Your task to perform on an android device: toggle airplane mode Image 0: 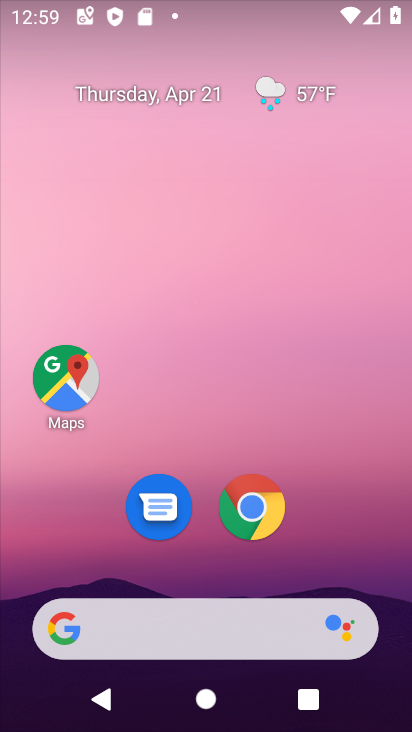
Step 0: drag from (328, 530) to (283, 45)
Your task to perform on an android device: toggle airplane mode Image 1: 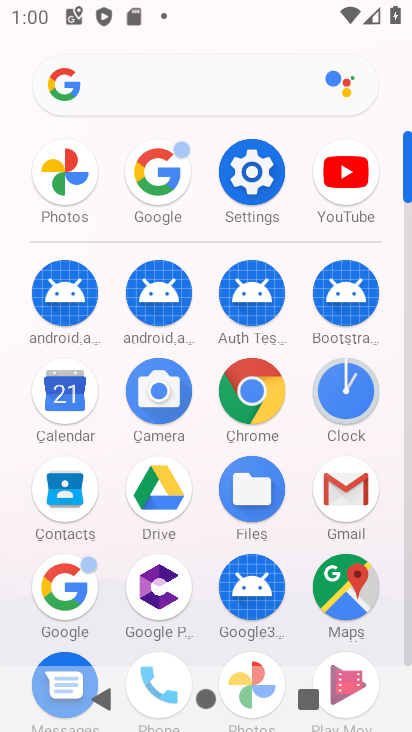
Step 1: click (254, 170)
Your task to perform on an android device: toggle airplane mode Image 2: 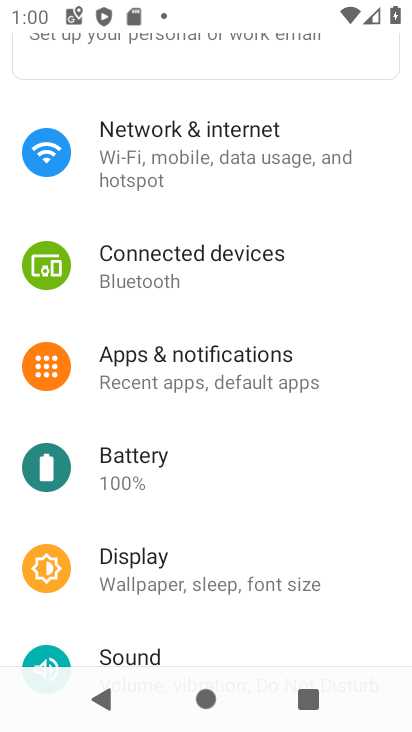
Step 2: click (240, 123)
Your task to perform on an android device: toggle airplane mode Image 3: 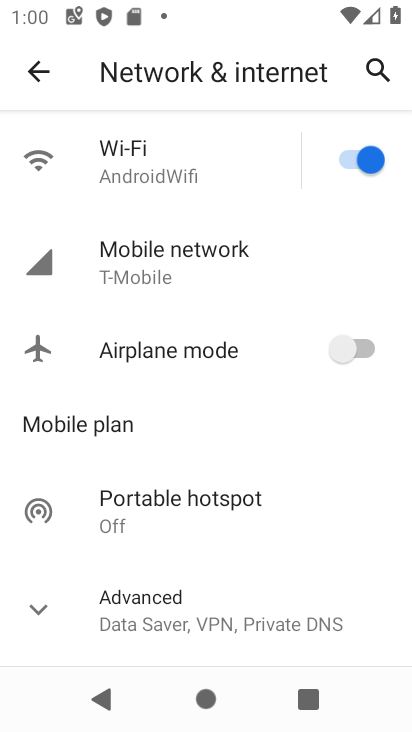
Step 3: click (359, 350)
Your task to perform on an android device: toggle airplane mode Image 4: 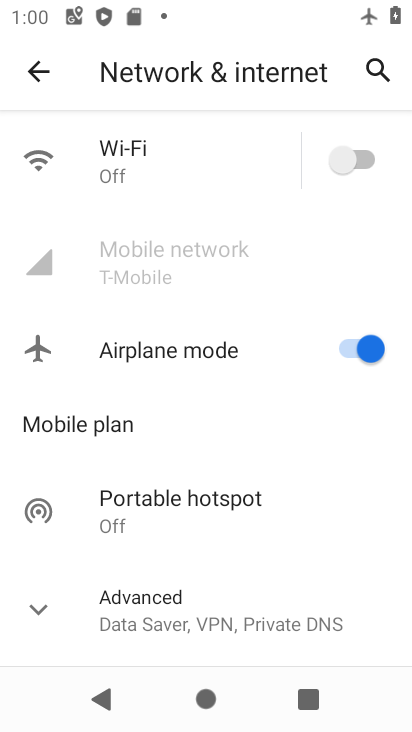
Step 4: task complete